Your task to perform on an android device: Go to notification settings Image 0: 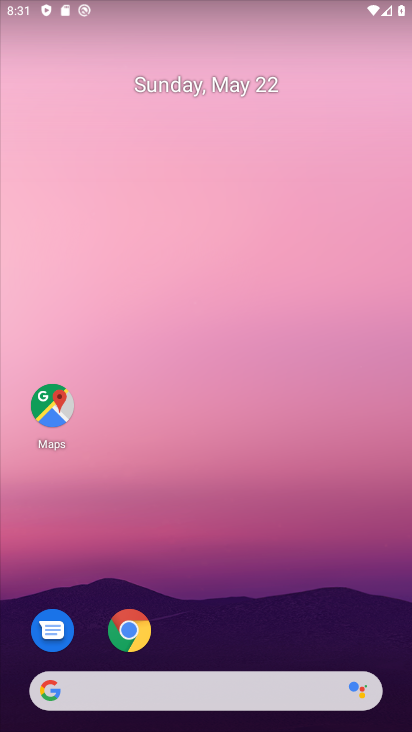
Step 0: drag from (303, 604) to (215, 26)
Your task to perform on an android device: Go to notification settings Image 1: 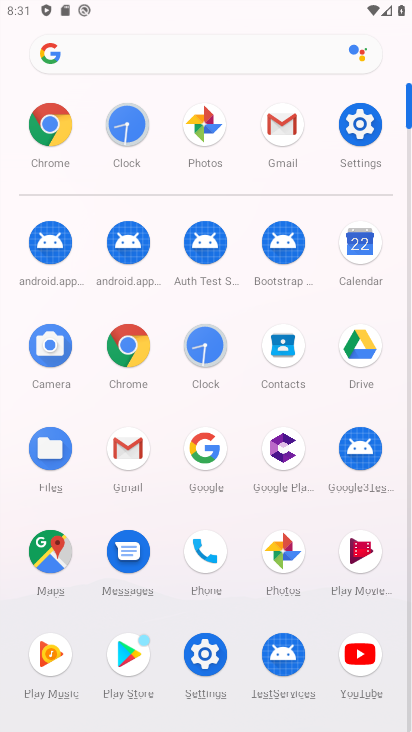
Step 1: click (365, 135)
Your task to perform on an android device: Go to notification settings Image 2: 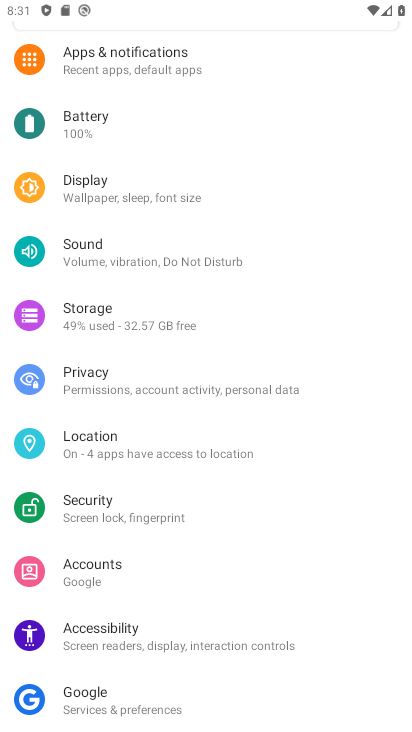
Step 2: click (156, 43)
Your task to perform on an android device: Go to notification settings Image 3: 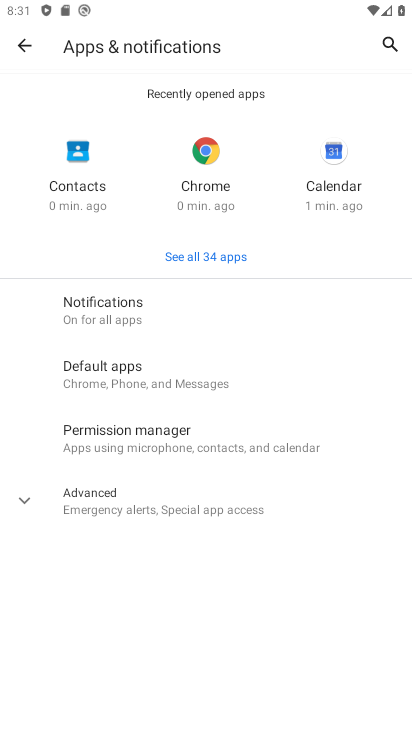
Step 3: click (190, 483)
Your task to perform on an android device: Go to notification settings Image 4: 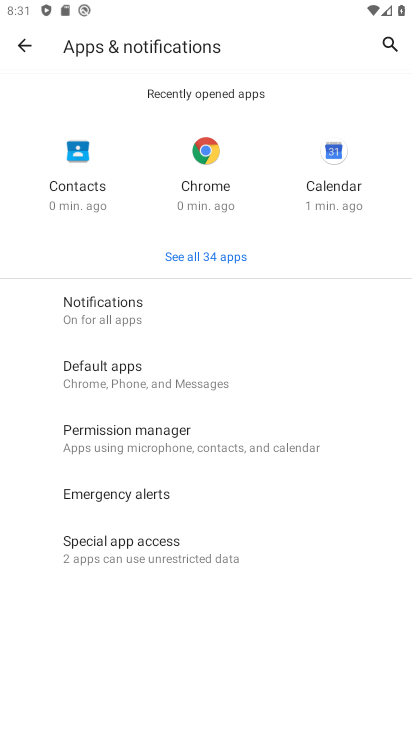
Step 4: click (182, 338)
Your task to perform on an android device: Go to notification settings Image 5: 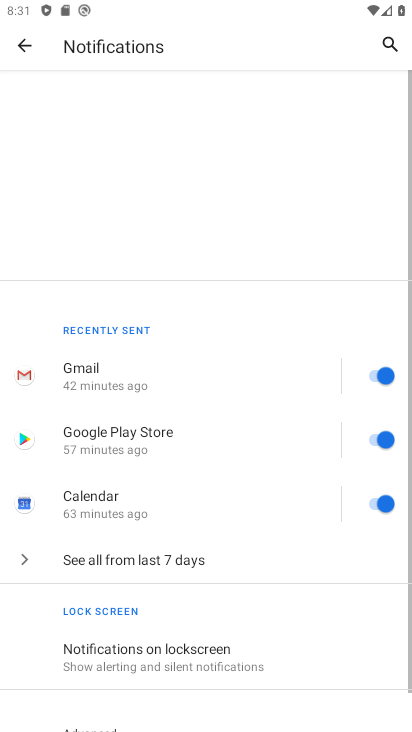
Step 5: task complete